Your task to perform on an android device: toggle location history Image 0: 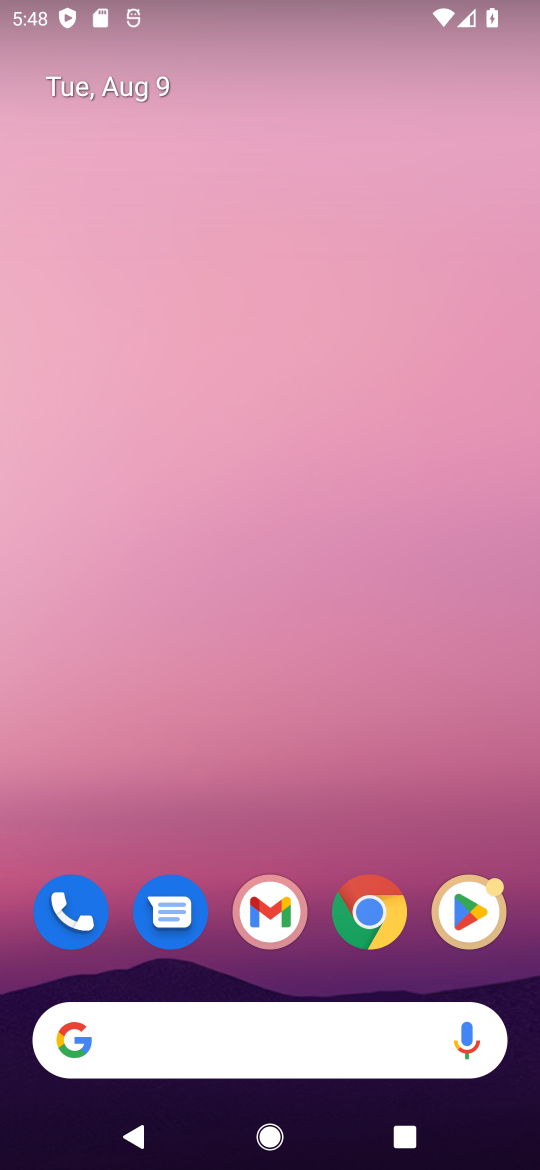
Step 0: press home button
Your task to perform on an android device: toggle location history Image 1: 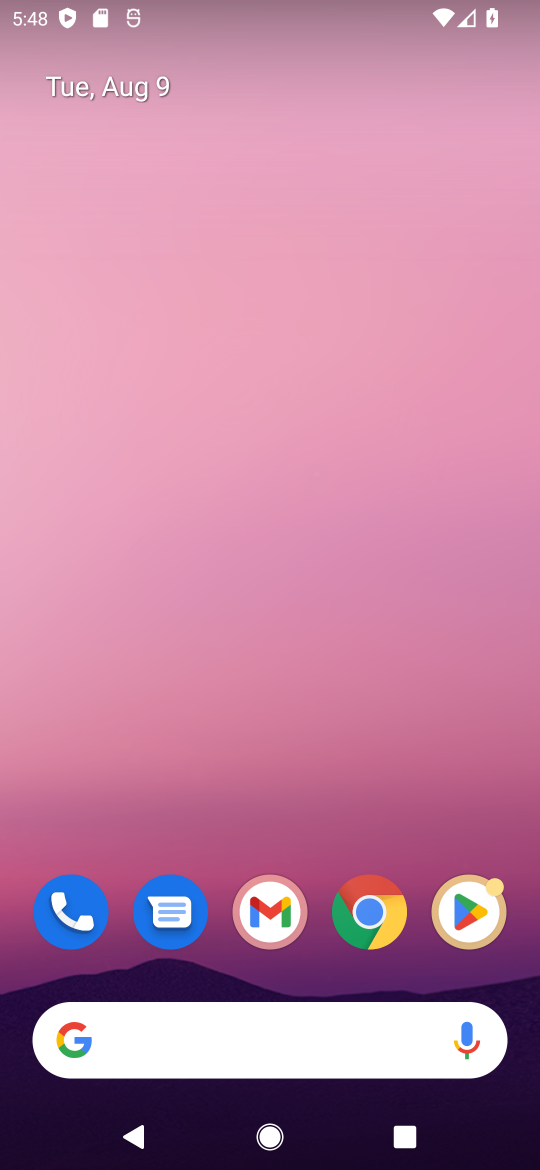
Step 1: drag from (309, 845) to (285, 253)
Your task to perform on an android device: toggle location history Image 2: 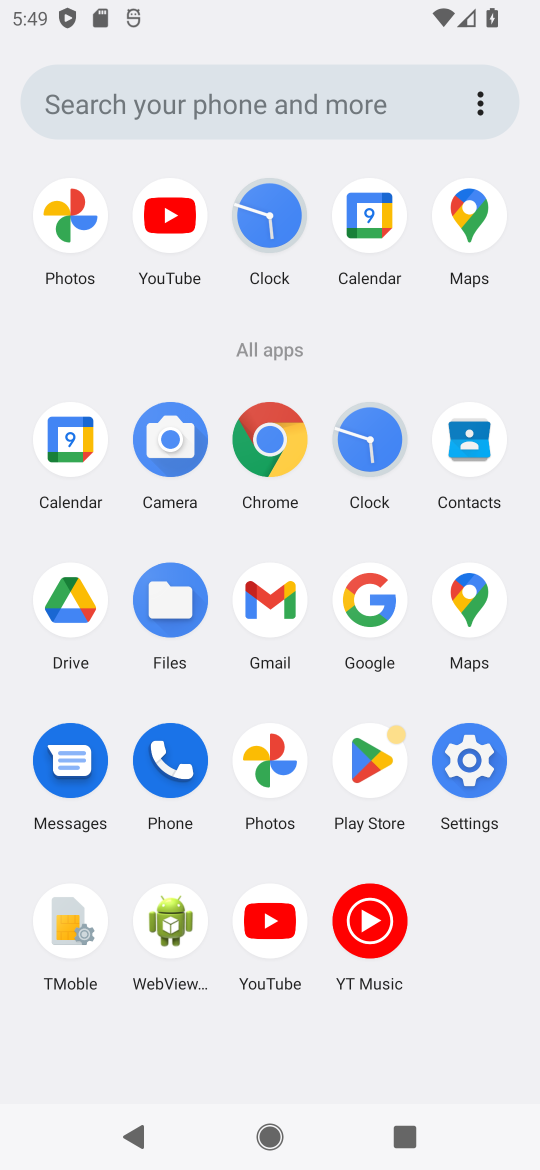
Step 2: click (452, 767)
Your task to perform on an android device: toggle location history Image 3: 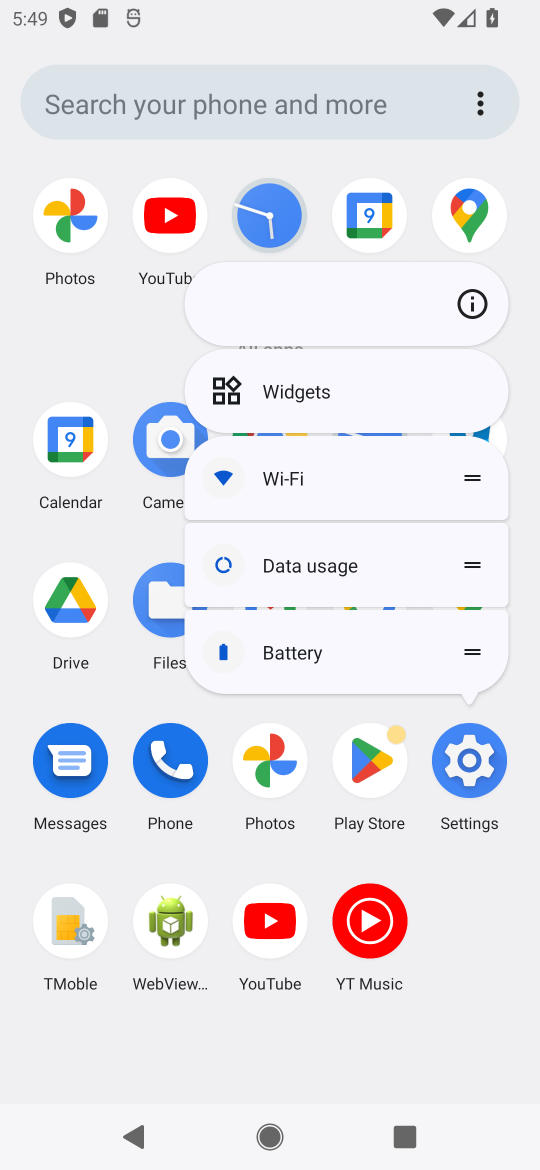
Step 3: click (457, 762)
Your task to perform on an android device: toggle location history Image 4: 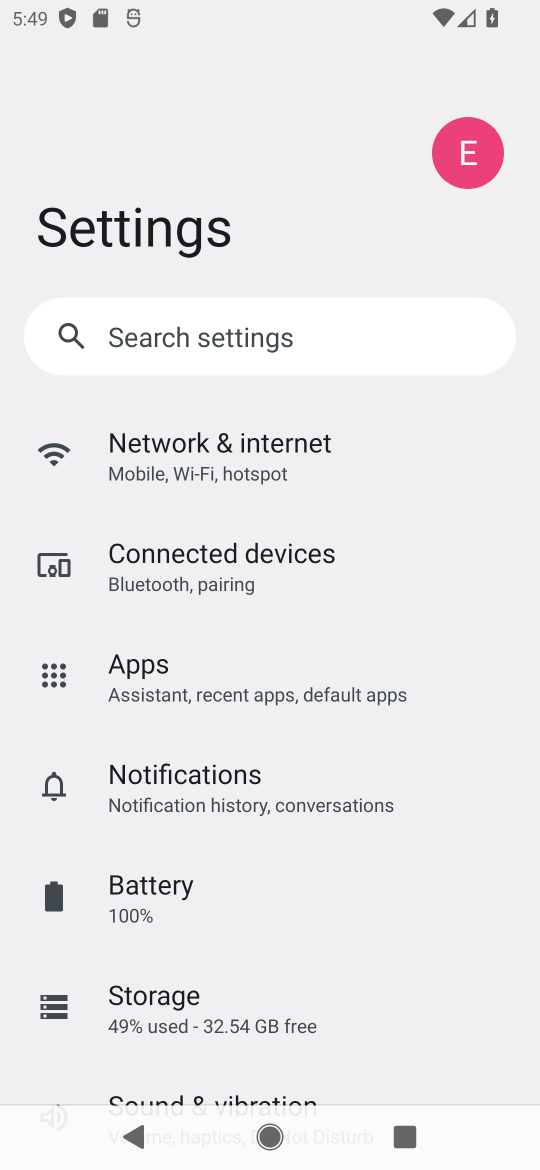
Step 4: drag from (349, 866) to (313, 298)
Your task to perform on an android device: toggle location history Image 5: 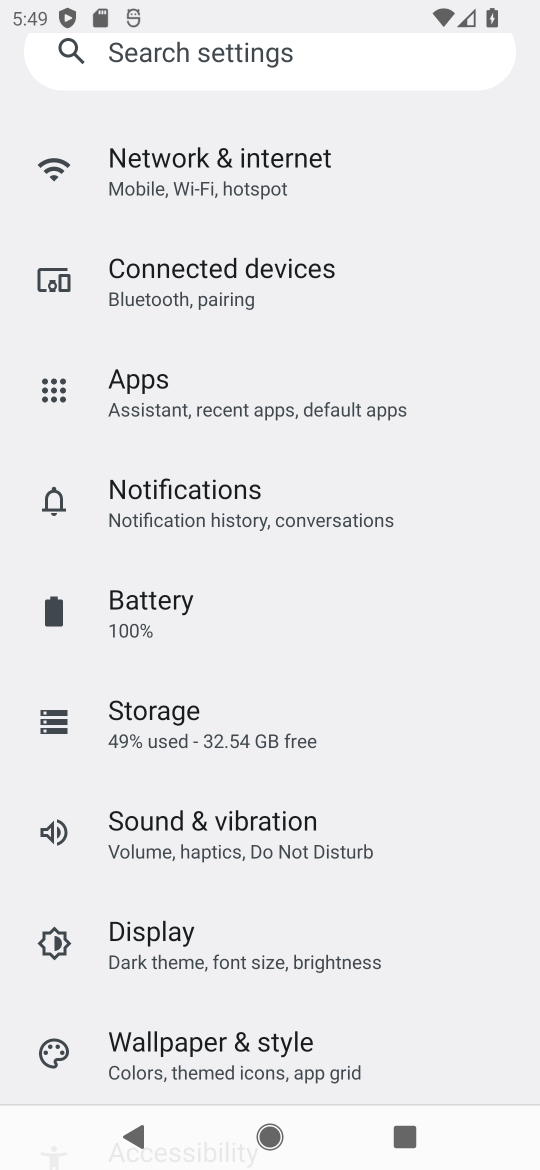
Step 5: drag from (367, 911) to (300, 453)
Your task to perform on an android device: toggle location history Image 6: 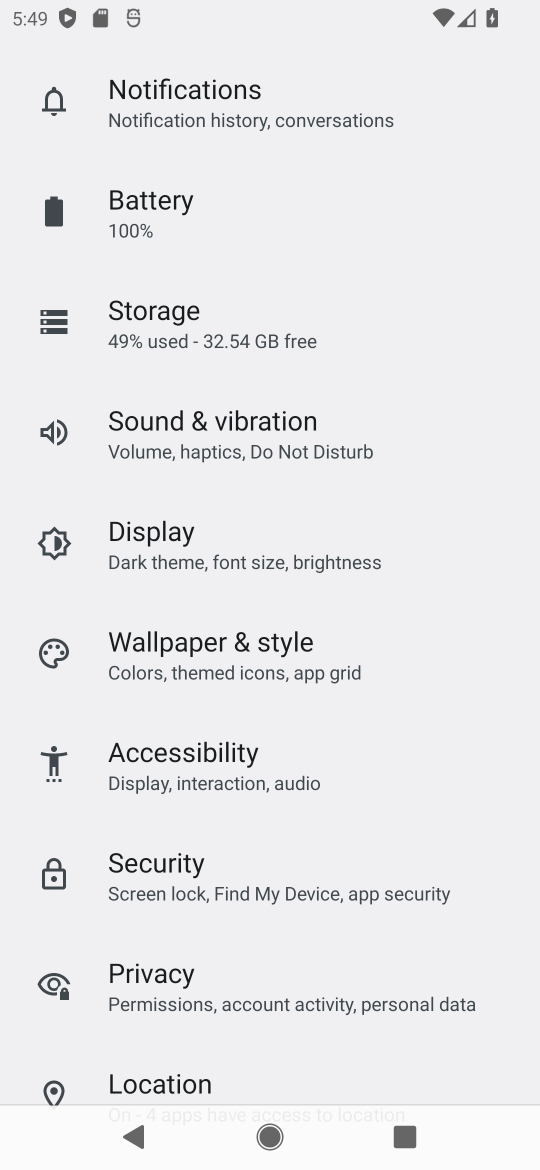
Step 6: click (121, 1086)
Your task to perform on an android device: toggle location history Image 7: 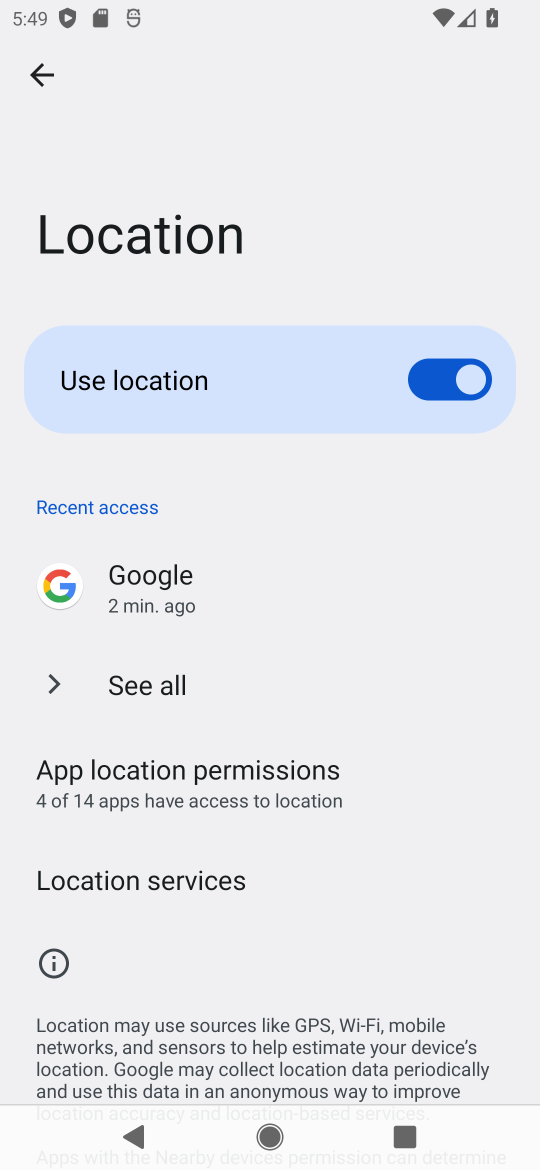
Step 7: click (192, 893)
Your task to perform on an android device: toggle location history Image 8: 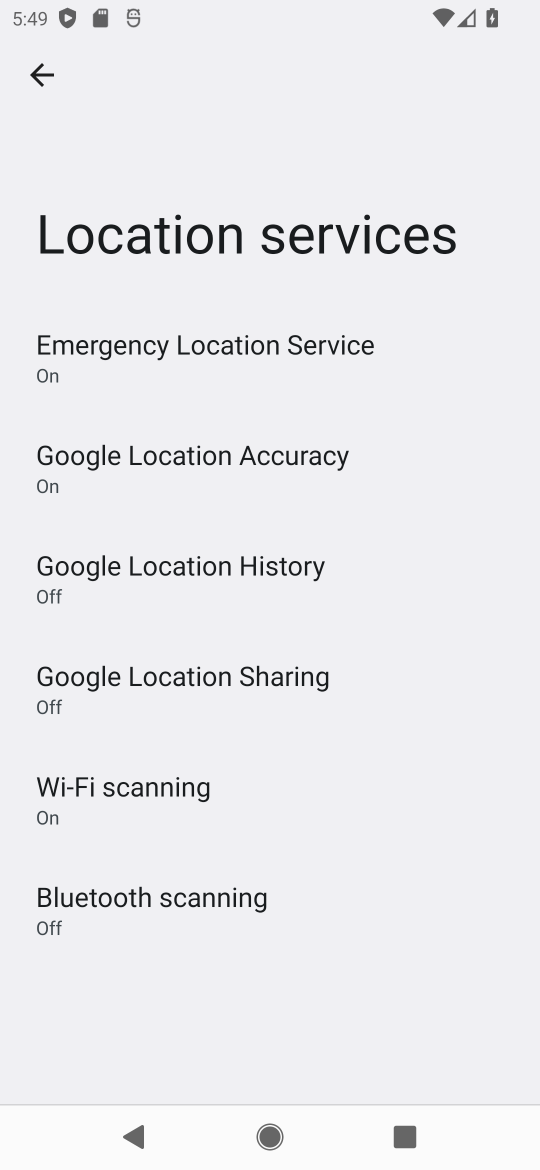
Step 8: click (212, 568)
Your task to perform on an android device: toggle location history Image 9: 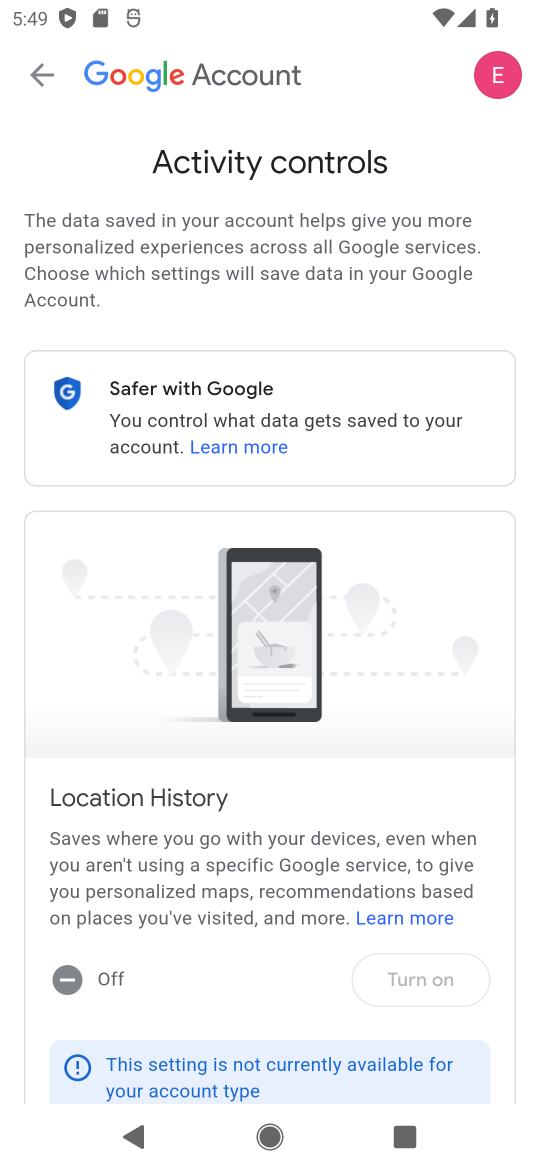
Step 9: click (421, 971)
Your task to perform on an android device: toggle location history Image 10: 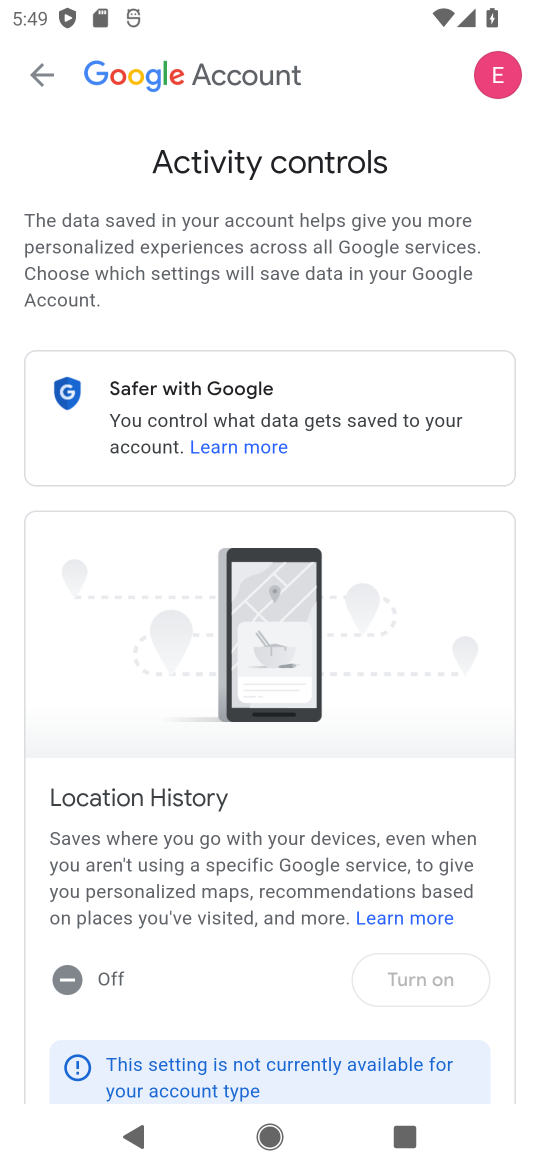
Step 10: click (420, 973)
Your task to perform on an android device: toggle location history Image 11: 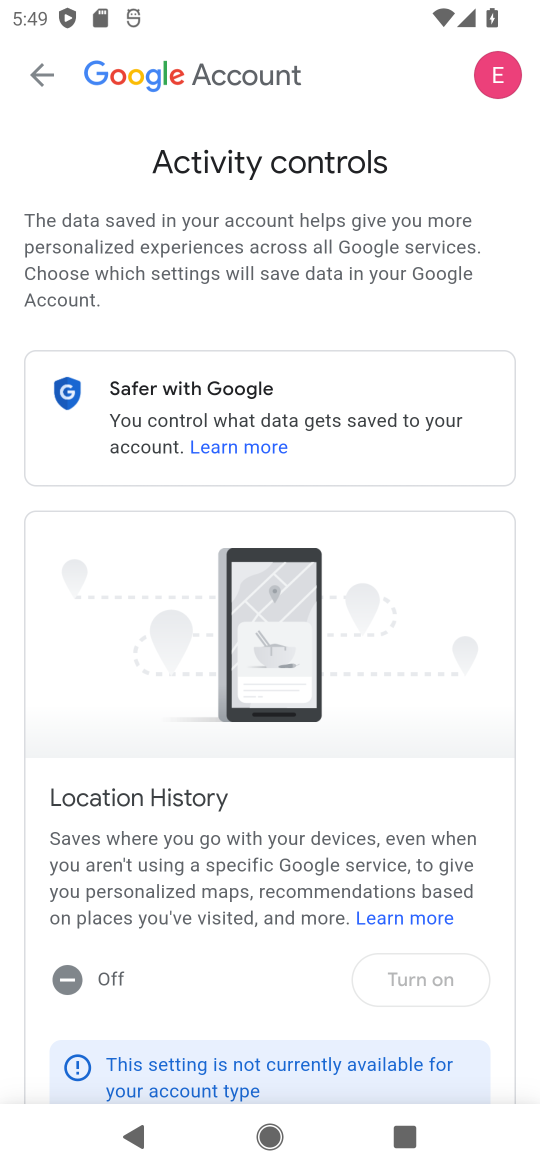
Step 11: click (420, 973)
Your task to perform on an android device: toggle location history Image 12: 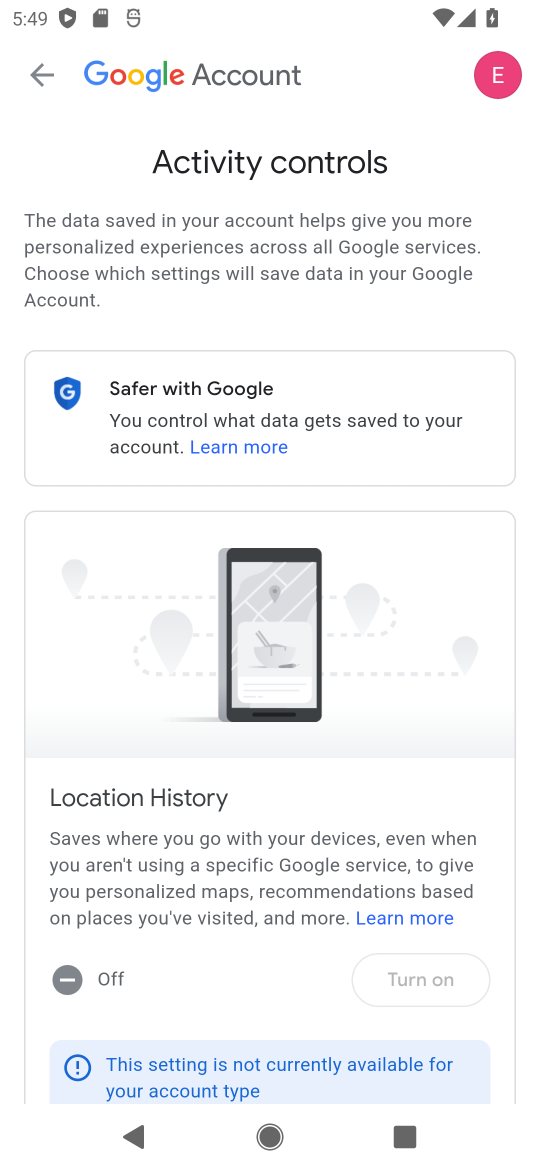
Step 12: task complete